Your task to perform on an android device: Open settings Image 0: 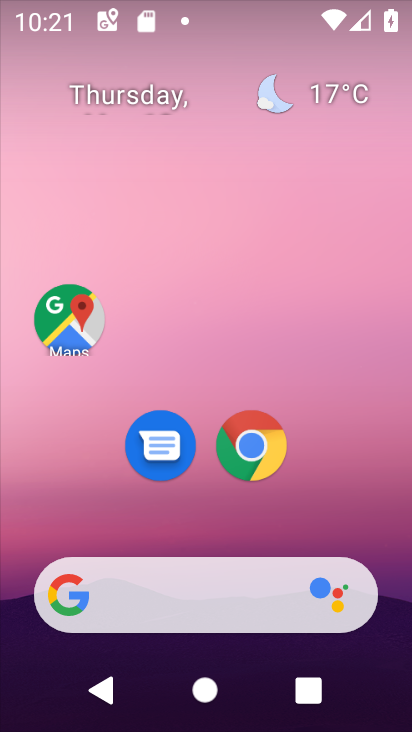
Step 0: drag from (45, 236) to (94, 116)
Your task to perform on an android device: Open settings Image 1: 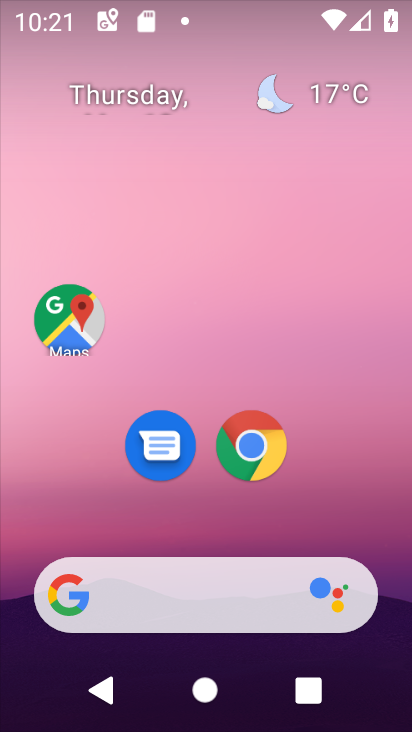
Step 1: drag from (27, 636) to (214, 161)
Your task to perform on an android device: Open settings Image 2: 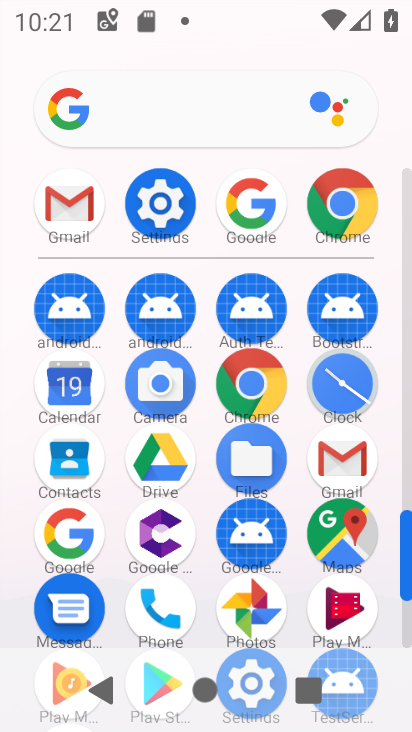
Step 2: click (144, 203)
Your task to perform on an android device: Open settings Image 3: 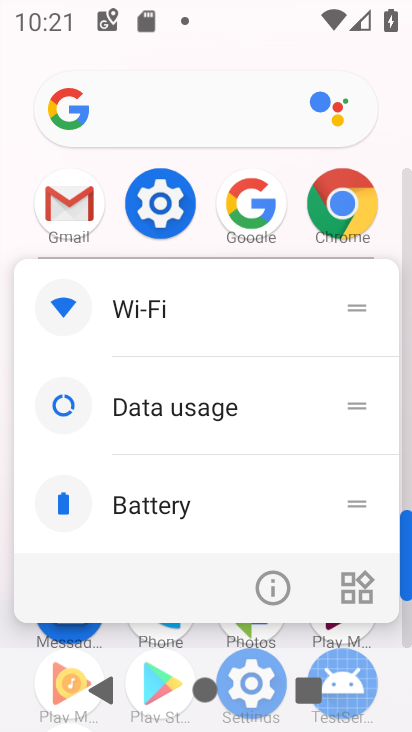
Step 3: click (169, 220)
Your task to perform on an android device: Open settings Image 4: 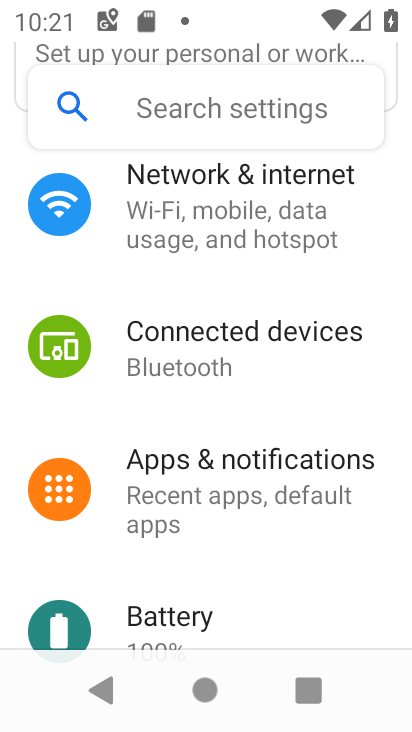
Step 4: task complete